Your task to perform on an android device: Open Google Image 0: 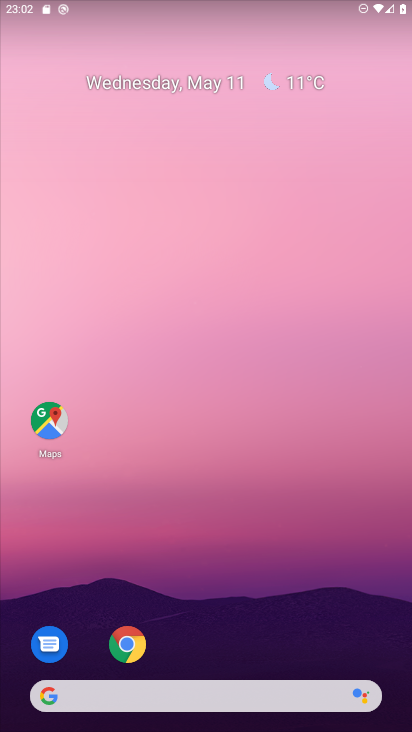
Step 0: drag from (207, 646) to (223, 4)
Your task to perform on an android device: Open Google Image 1: 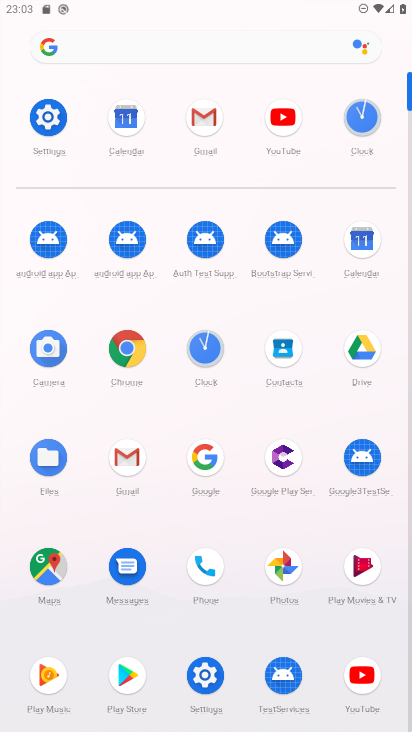
Step 1: click (196, 457)
Your task to perform on an android device: Open Google Image 2: 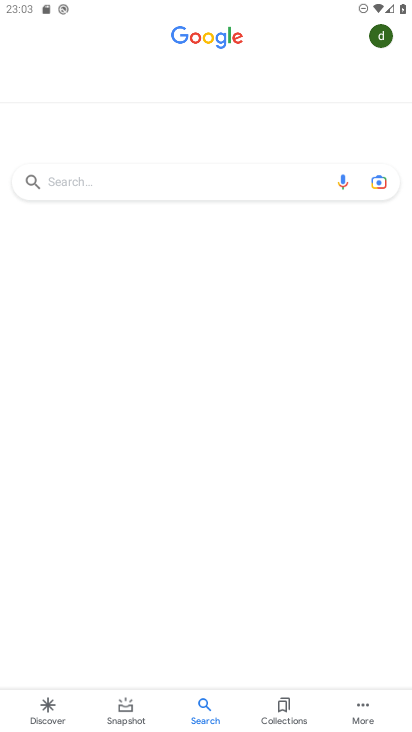
Step 2: task complete